Your task to perform on an android device: install app "Contacts" Image 0: 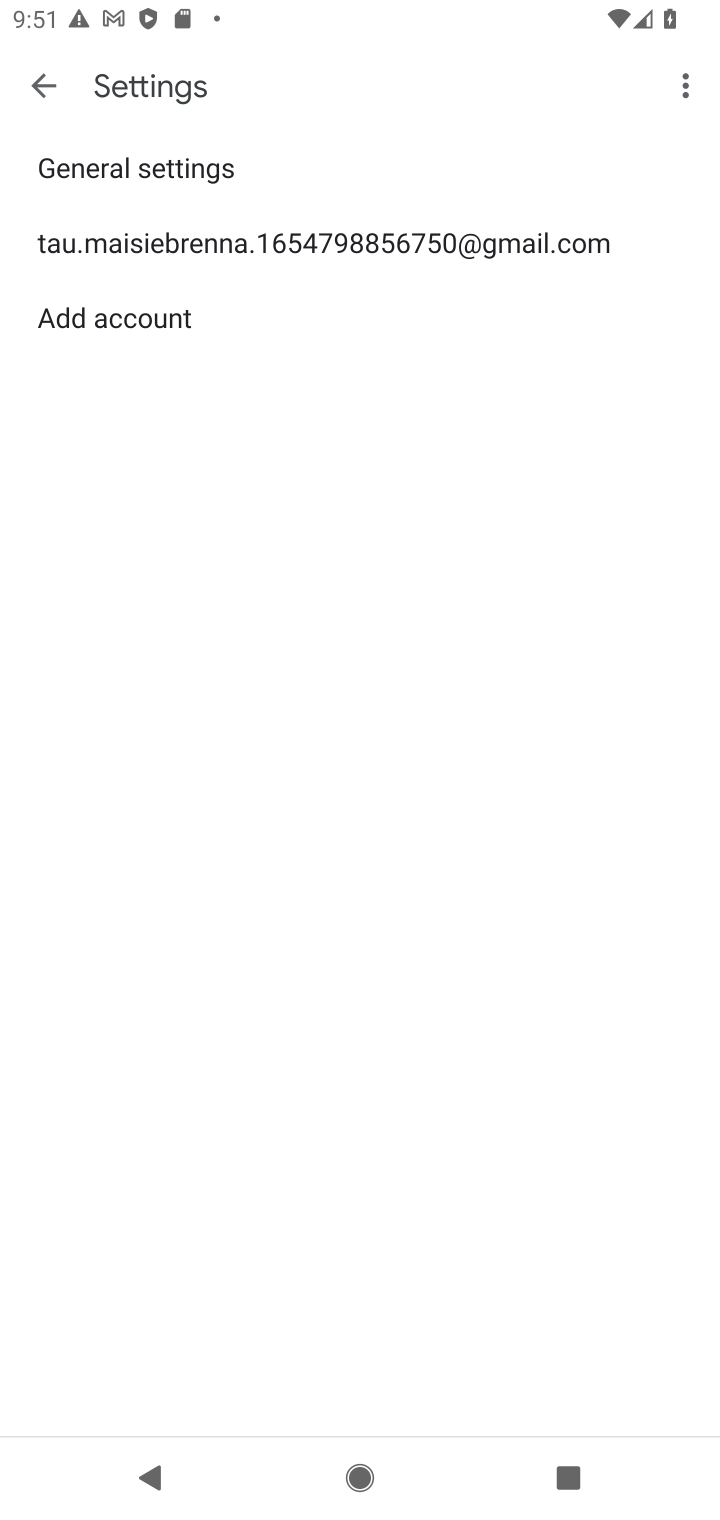
Step 0: press home button
Your task to perform on an android device: install app "Contacts" Image 1: 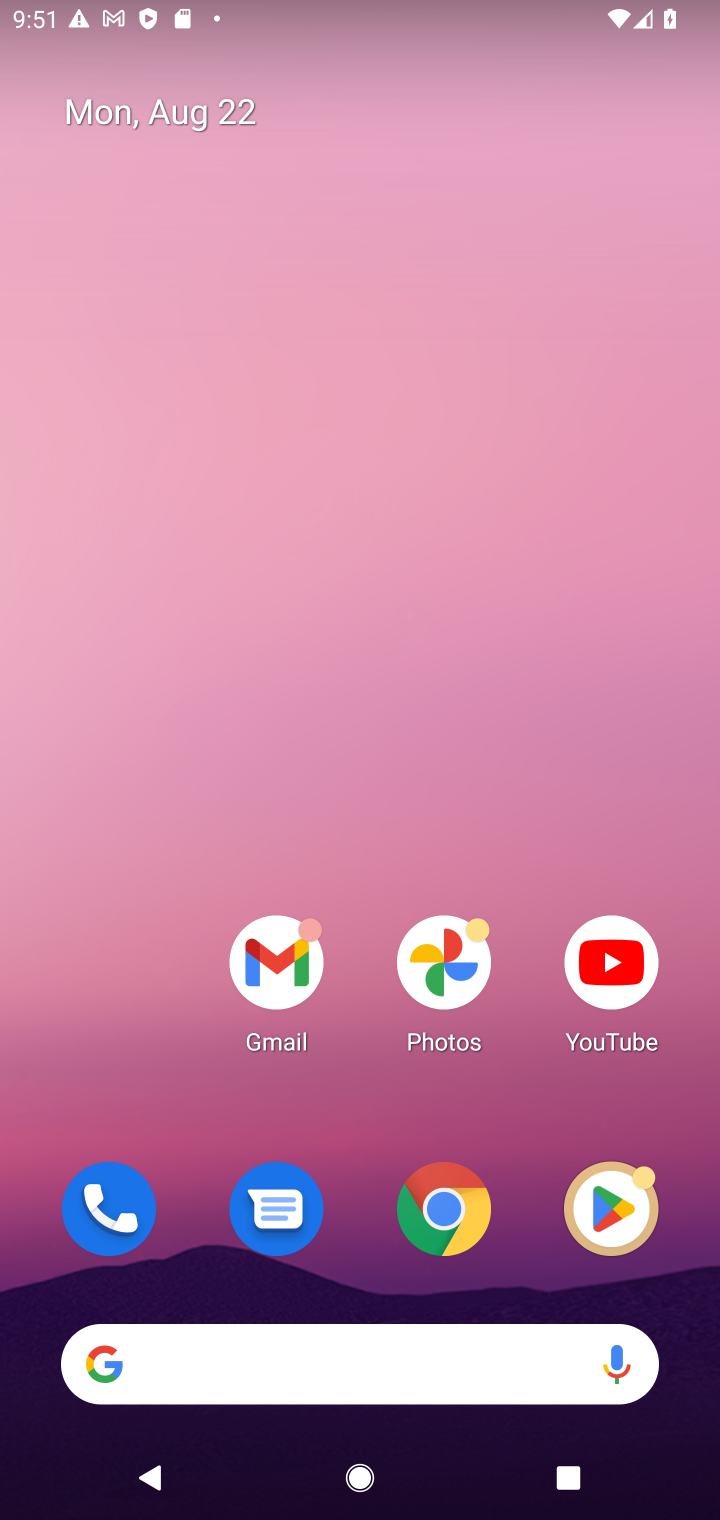
Step 1: drag from (312, 805) to (378, 76)
Your task to perform on an android device: install app "Contacts" Image 2: 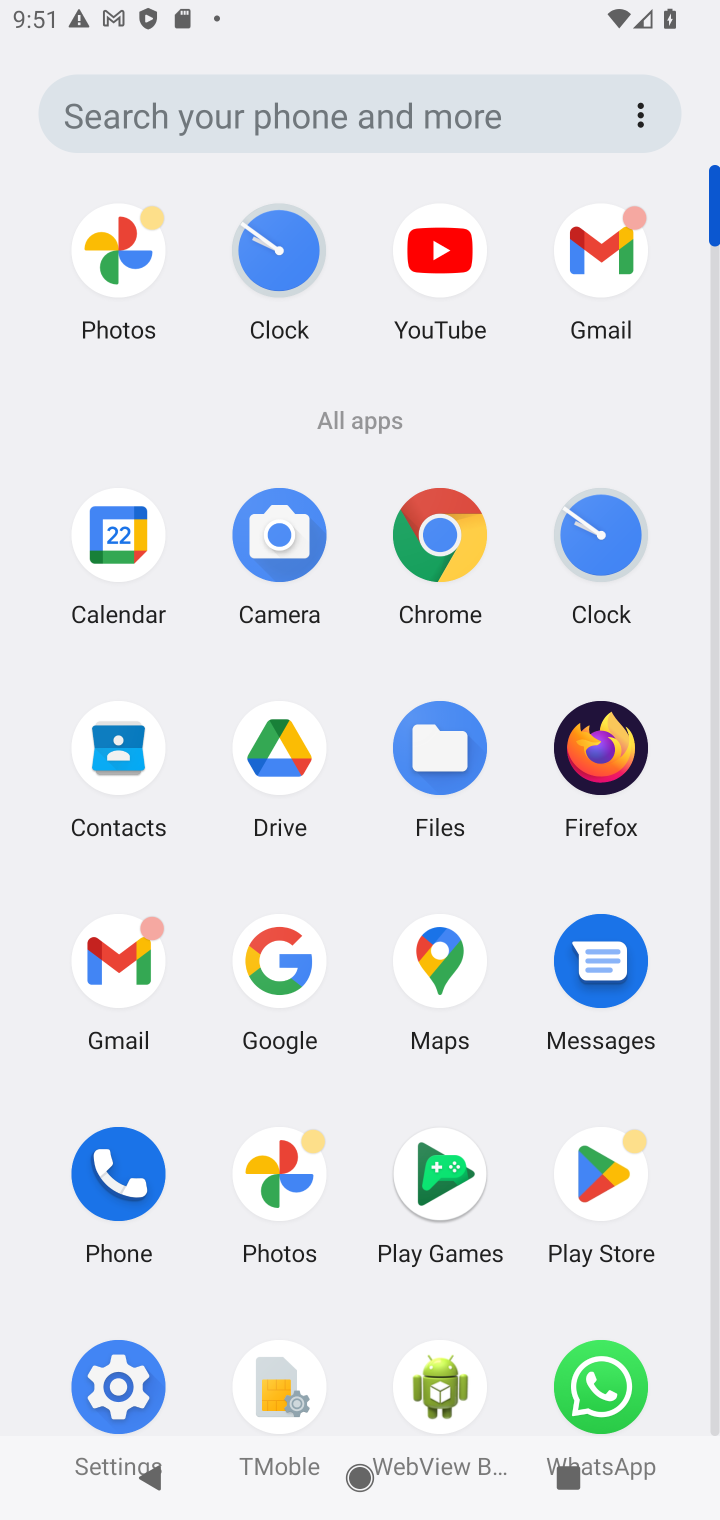
Step 2: click (108, 751)
Your task to perform on an android device: install app "Contacts" Image 3: 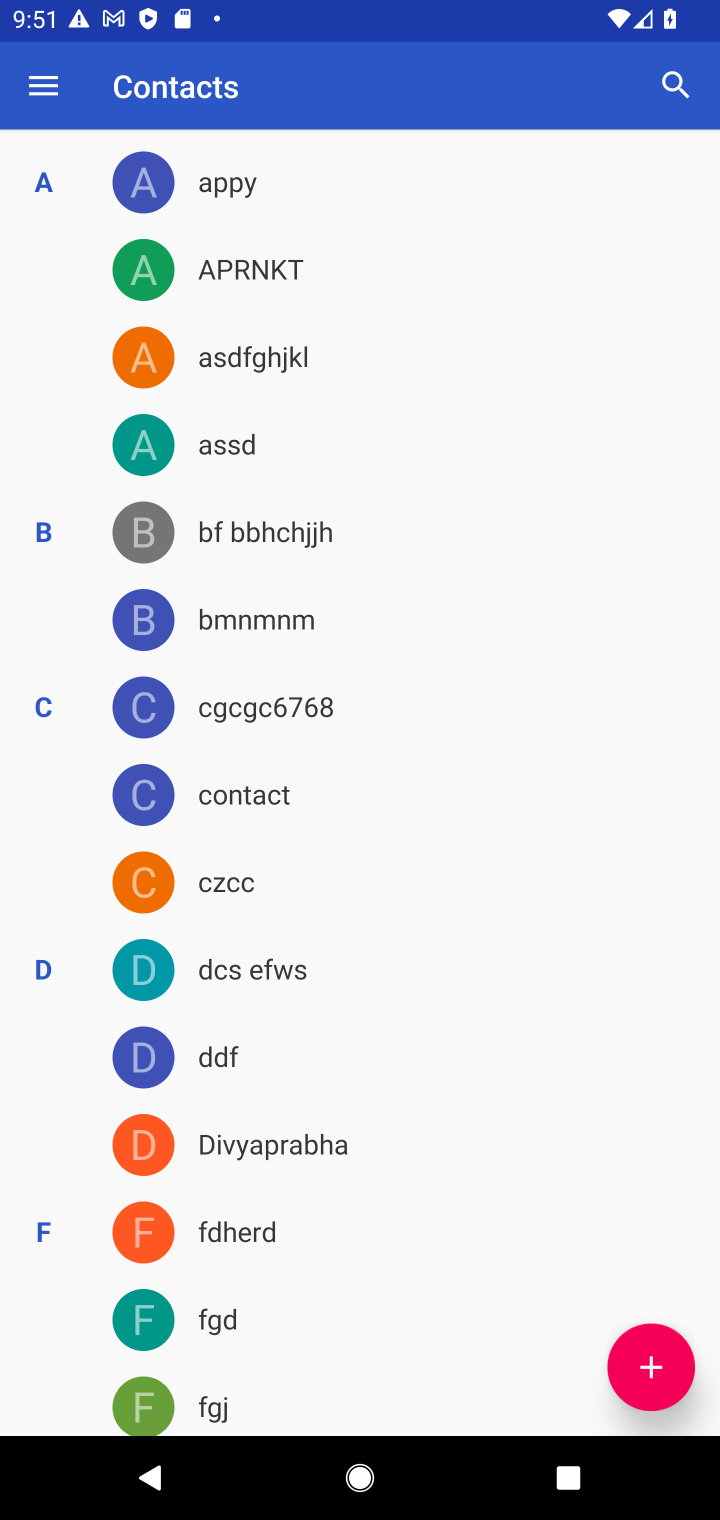
Step 3: task complete